Your task to perform on an android device: Show me recent news Image 0: 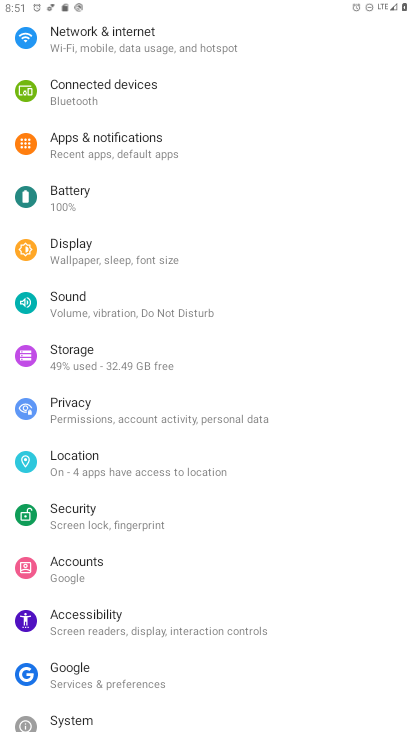
Step 0: press home button
Your task to perform on an android device: Show me recent news Image 1: 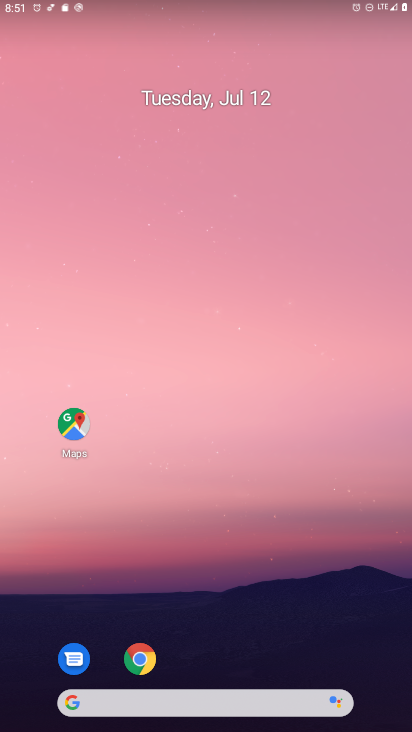
Step 1: drag from (158, 696) to (157, 78)
Your task to perform on an android device: Show me recent news Image 2: 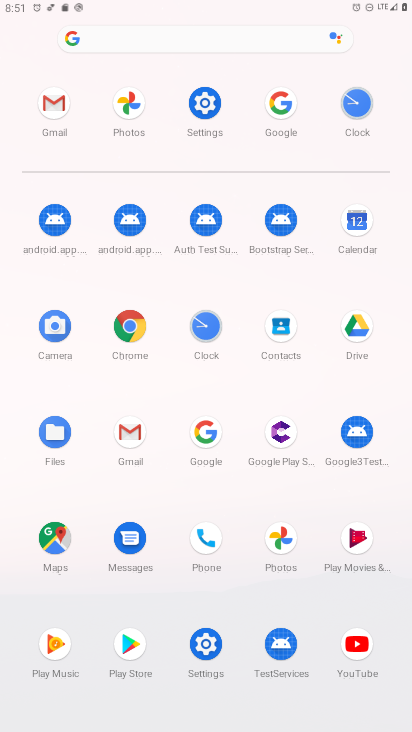
Step 2: click (281, 102)
Your task to perform on an android device: Show me recent news Image 3: 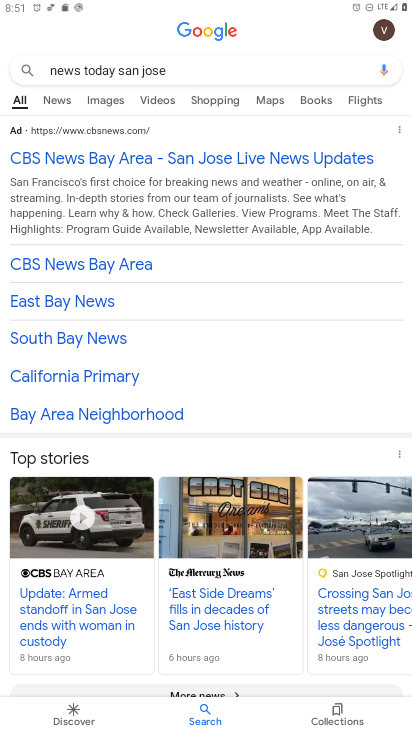
Step 3: click (258, 68)
Your task to perform on an android device: Show me recent news Image 4: 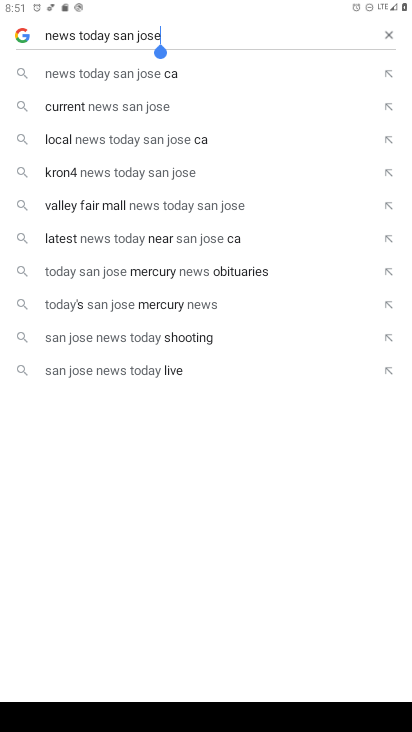
Step 4: click (391, 35)
Your task to perform on an android device: Show me recent news Image 5: 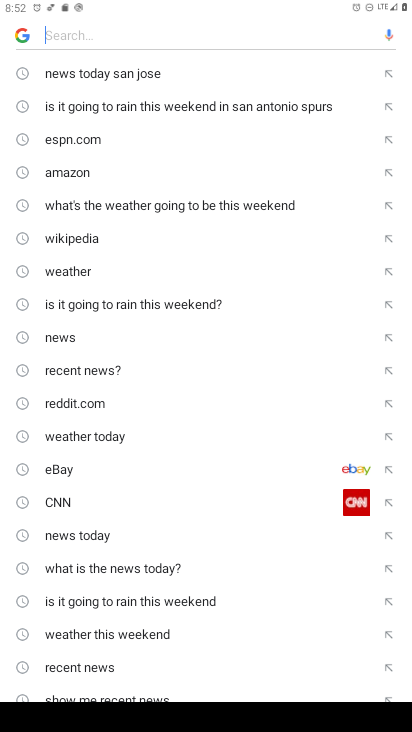
Step 5: type "recent news"
Your task to perform on an android device: Show me recent news Image 6: 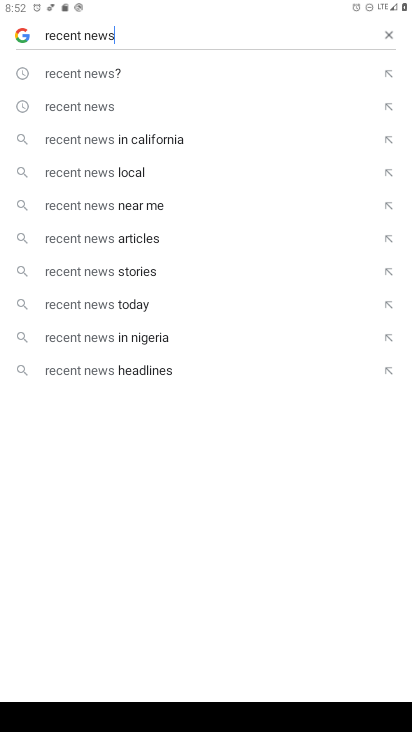
Step 6: click (91, 109)
Your task to perform on an android device: Show me recent news Image 7: 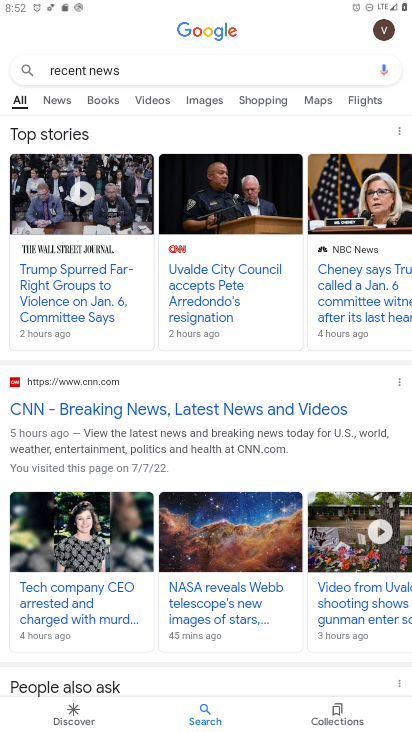
Step 7: click (75, 262)
Your task to perform on an android device: Show me recent news Image 8: 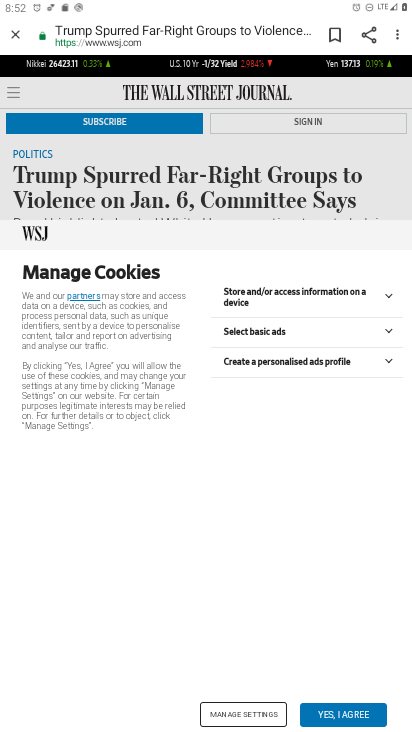
Step 8: task complete